Your task to perform on an android device: What's the weather today? Image 0: 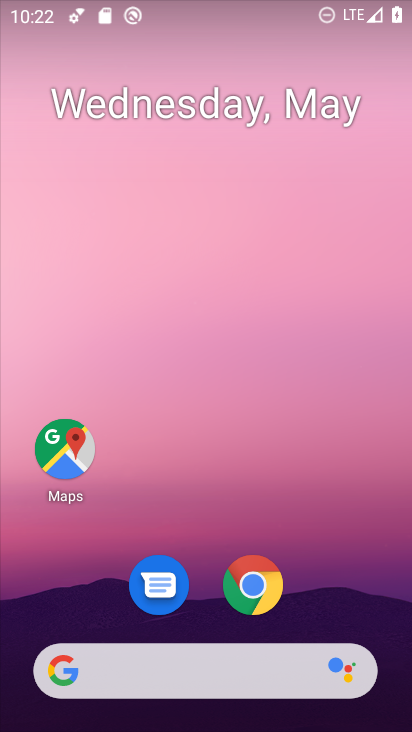
Step 0: click (166, 683)
Your task to perform on an android device: What's the weather today? Image 1: 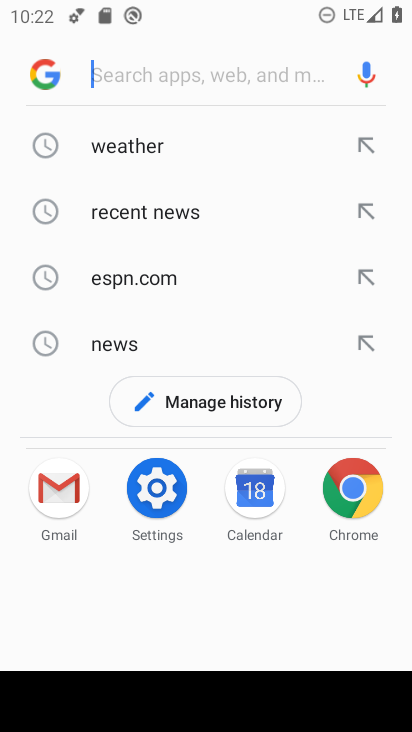
Step 1: click (115, 145)
Your task to perform on an android device: What's the weather today? Image 2: 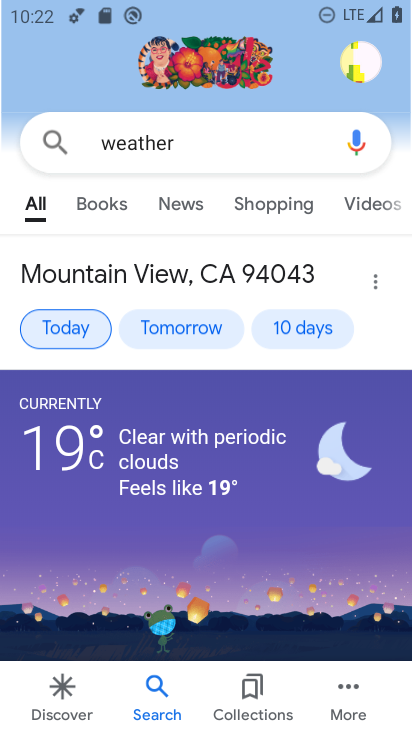
Step 2: click (85, 313)
Your task to perform on an android device: What's the weather today? Image 3: 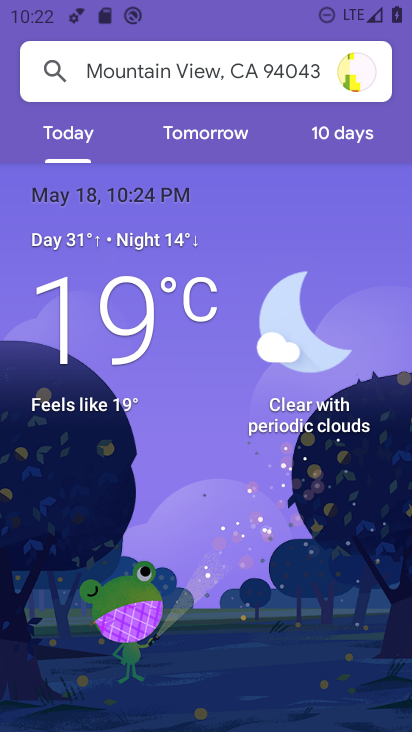
Step 3: task complete